Your task to perform on an android device: Open Android settings Image 0: 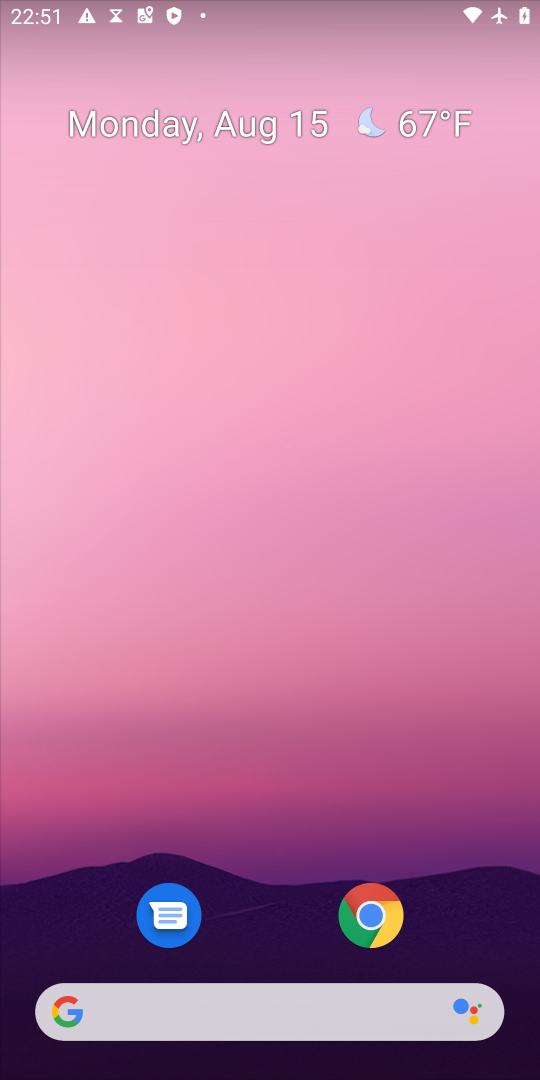
Step 0: press home button
Your task to perform on an android device: Open Android settings Image 1: 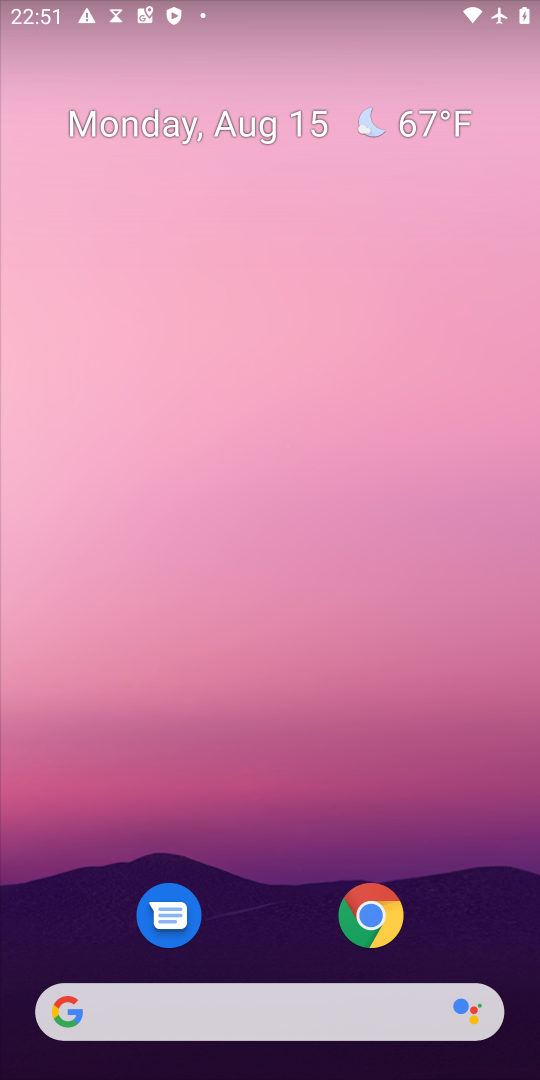
Step 1: drag from (291, 938) to (451, 185)
Your task to perform on an android device: Open Android settings Image 2: 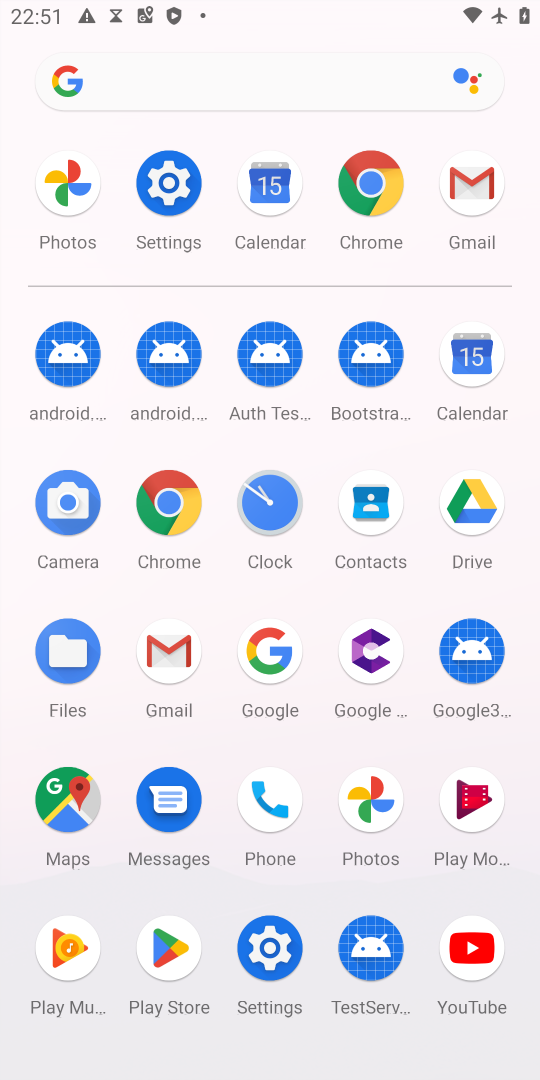
Step 2: click (182, 172)
Your task to perform on an android device: Open Android settings Image 3: 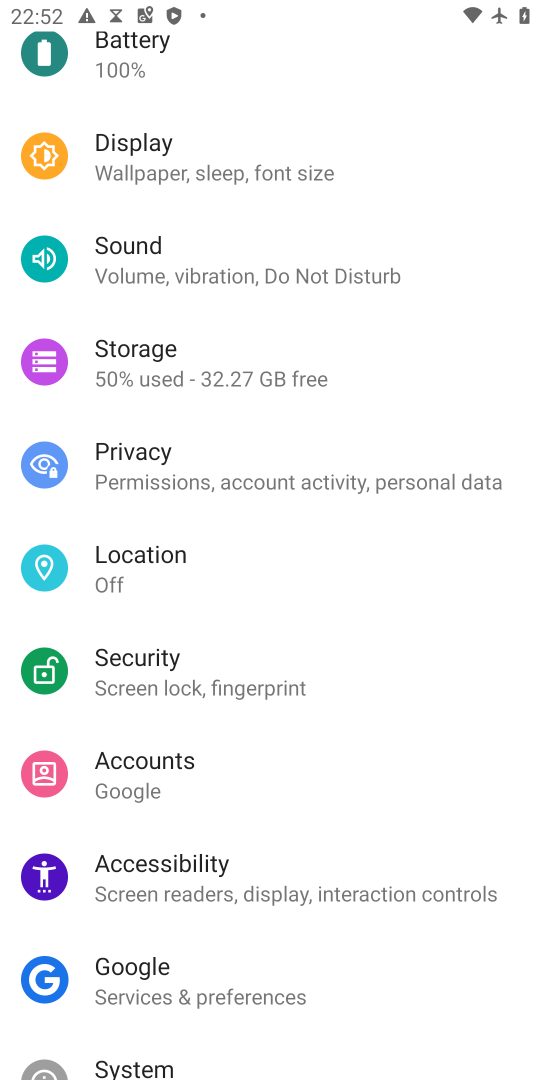
Step 3: task complete